Your task to perform on an android device: Do I have any events tomorrow? Image 0: 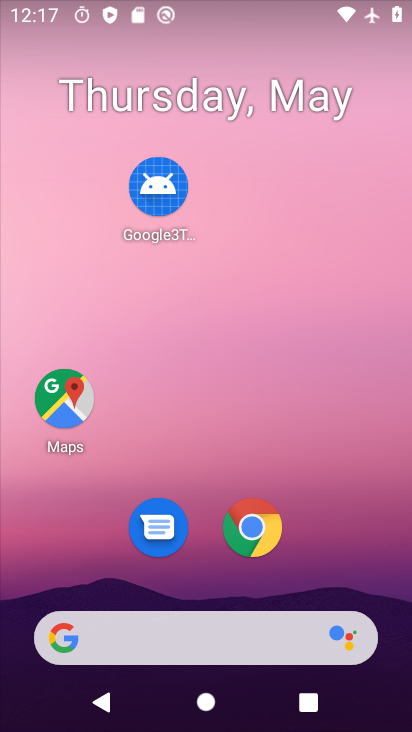
Step 0: drag from (196, 571) to (241, 69)
Your task to perform on an android device: Do I have any events tomorrow? Image 1: 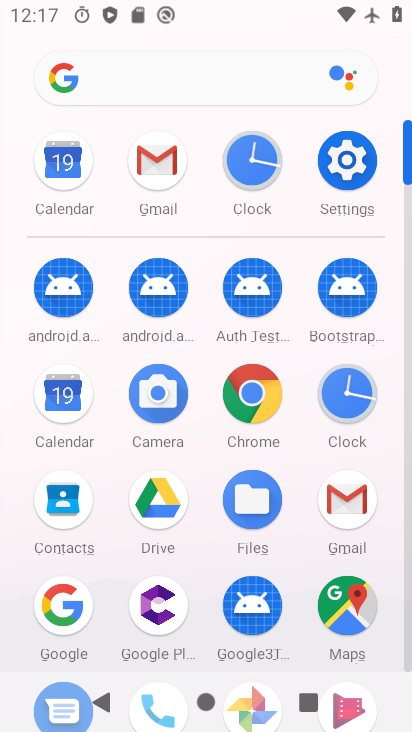
Step 1: click (57, 381)
Your task to perform on an android device: Do I have any events tomorrow? Image 2: 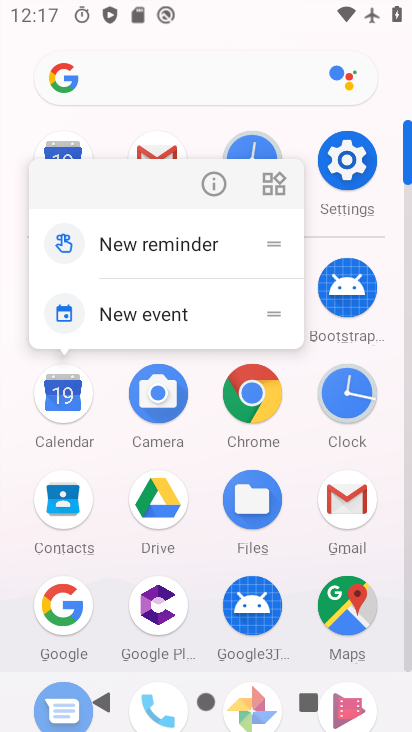
Step 2: click (60, 392)
Your task to perform on an android device: Do I have any events tomorrow? Image 3: 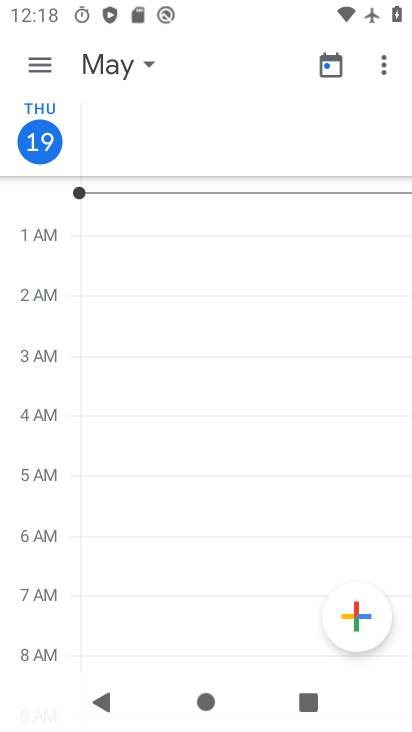
Step 3: click (57, 145)
Your task to perform on an android device: Do I have any events tomorrow? Image 4: 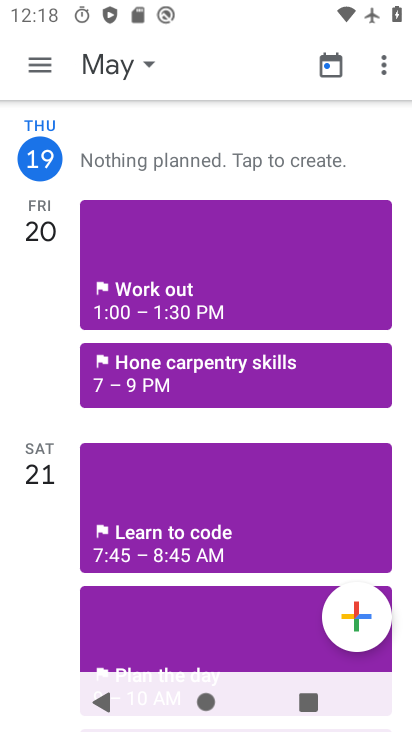
Step 4: click (50, 245)
Your task to perform on an android device: Do I have any events tomorrow? Image 5: 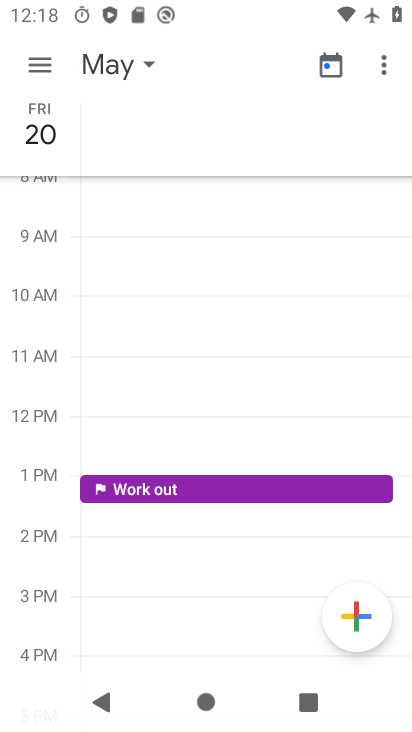
Step 5: task complete